Your task to perform on an android device: delete a single message in the gmail app Image 0: 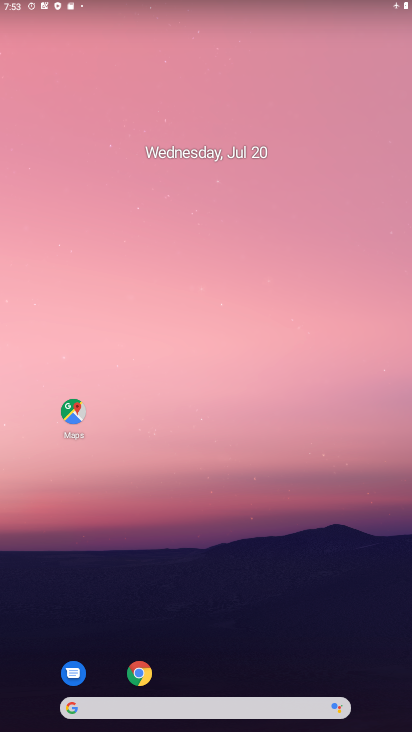
Step 0: drag from (368, 661) to (165, 72)
Your task to perform on an android device: delete a single message in the gmail app Image 1: 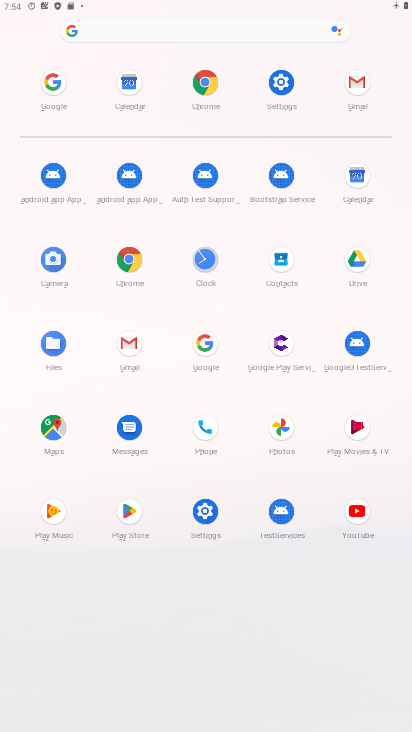
Step 1: click (129, 343)
Your task to perform on an android device: delete a single message in the gmail app Image 2: 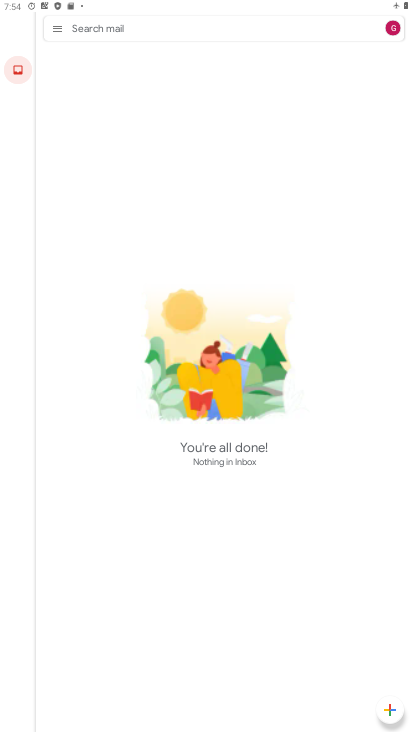
Step 2: task complete